Your task to perform on an android device: turn on showing notifications on the lock screen Image 0: 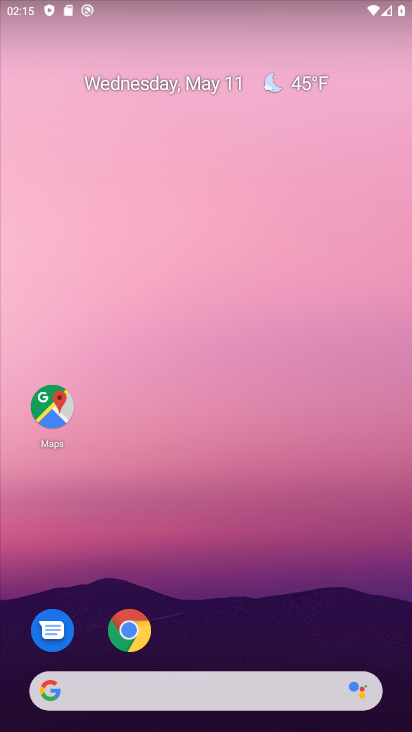
Step 0: drag from (185, 728) to (193, 174)
Your task to perform on an android device: turn on showing notifications on the lock screen Image 1: 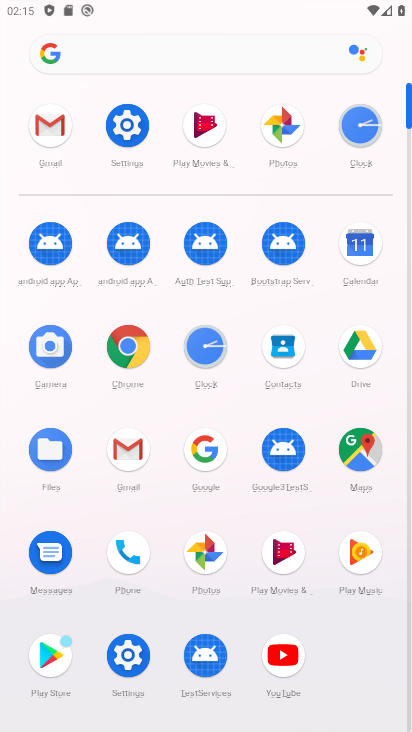
Step 1: click (127, 123)
Your task to perform on an android device: turn on showing notifications on the lock screen Image 2: 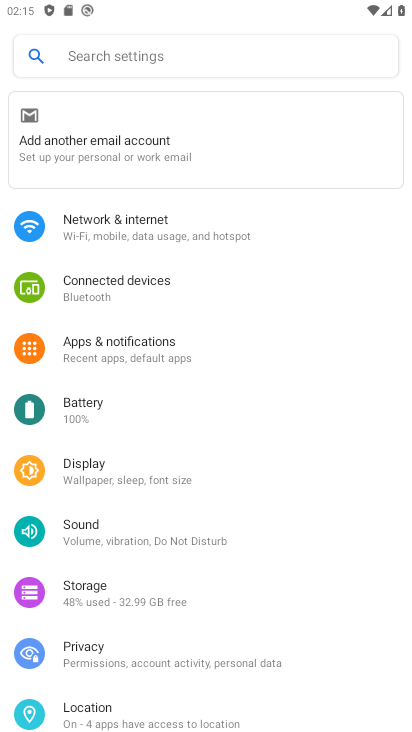
Step 2: click (111, 342)
Your task to perform on an android device: turn on showing notifications on the lock screen Image 3: 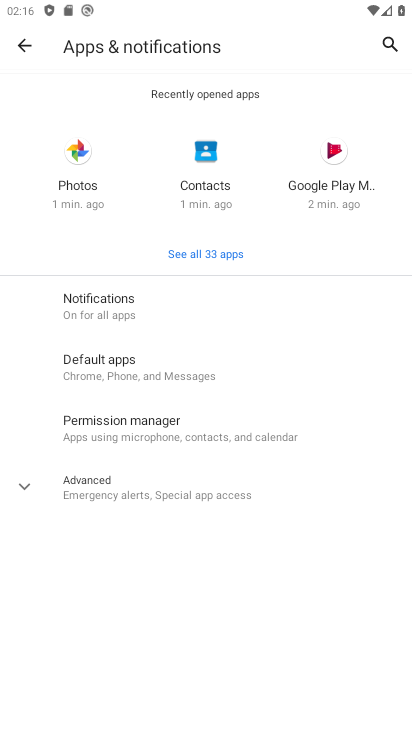
Step 3: click (102, 310)
Your task to perform on an android device: turn on showing notifications on the lock screen Image 4: 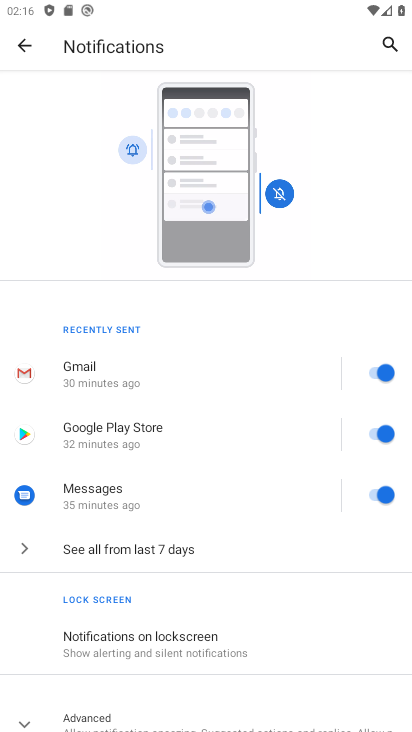
Step 4: task complete